Your task to perform on an android device: Go to Android settings Image 0: 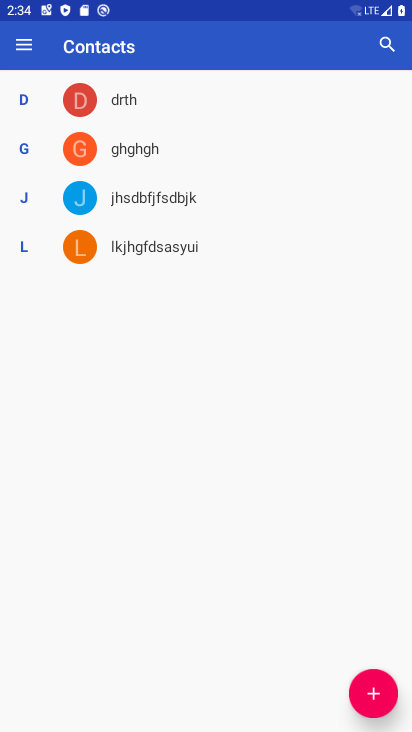
Step 0: drag from (303, 617) to (287, 400)
Your task to perform on an android device: Go to Android settings Image 1: 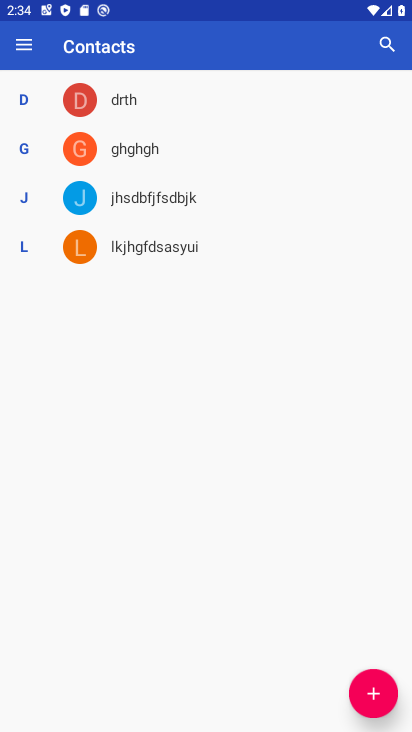
Step 1: press home button
Your task to perform on an android device: Go to Android settings Image 2: 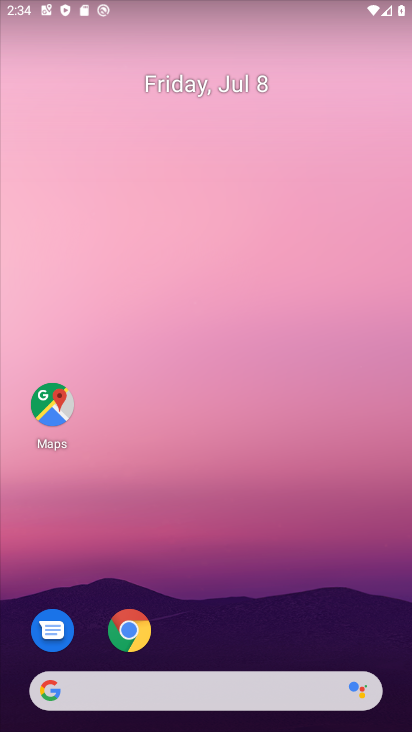
Step 2: drag from (262, 629) to (213, 5)
Your task to perform on an android device: Go to Android settings Image 3: 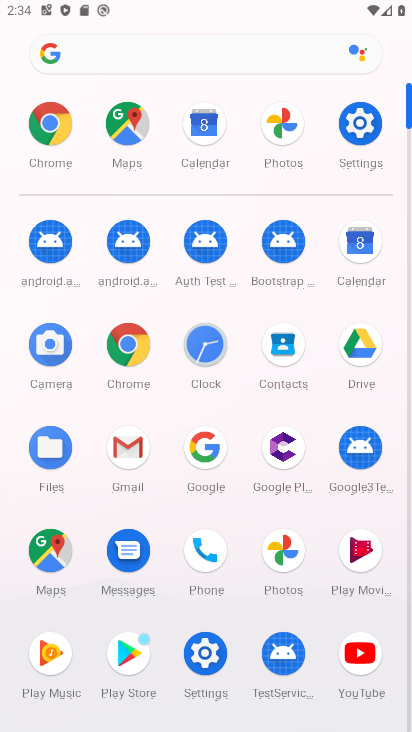
Step 3: click (208, 682)
Your task to perform on an android device: Go to Android settings Image 4: 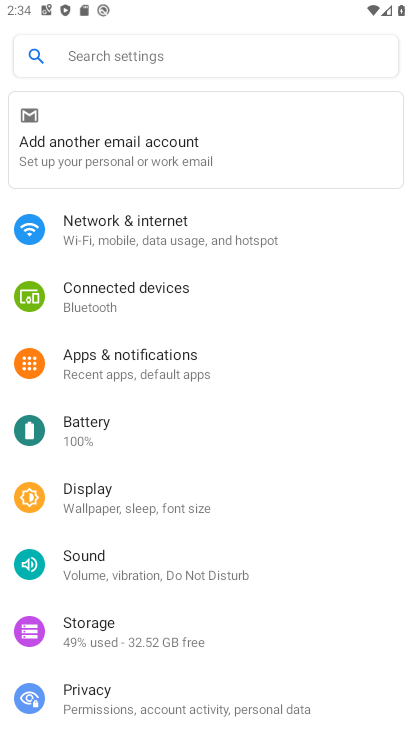
Step 4: drag from (208, 682) to (130, 234)
Your task to perform on an android device: Go to Android settings Image 5: 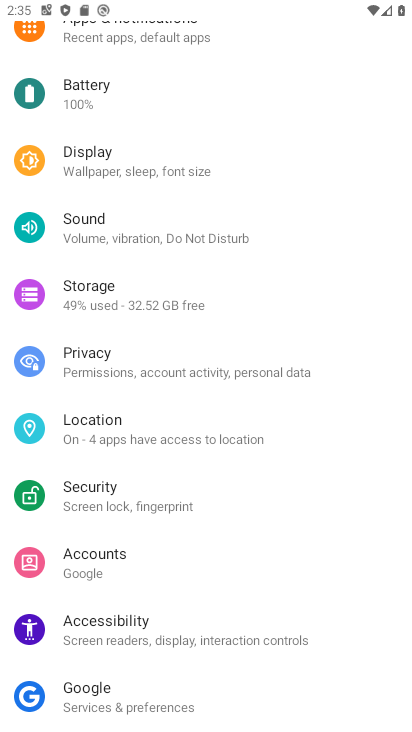
Step 5: drag from (117, 712) to (81, 305)
Your task to perform on an android device: Go to Android settings Image 6: 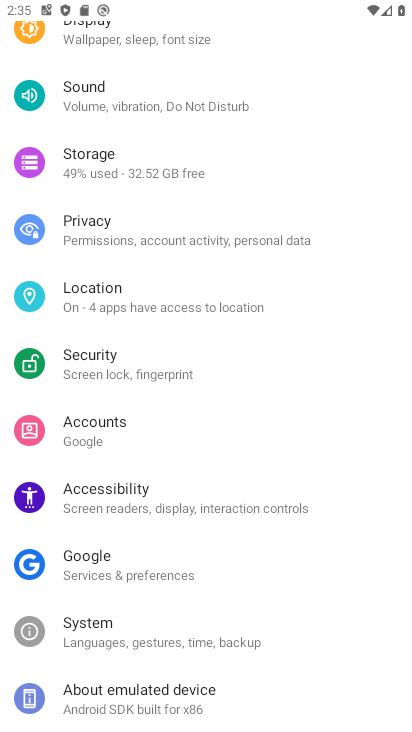
Step 6: click (166, 680)
Your task to perform on an android device: Go to Android settings Image 7: 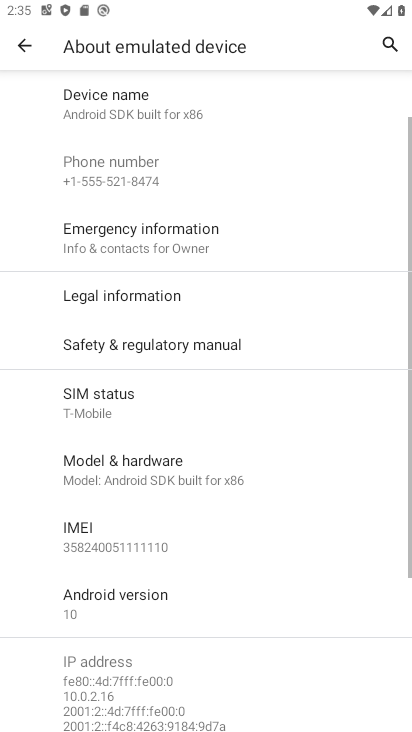
Step 7: task complete